Your task to perform on an android device: uninstall "Adobe Acrobat Reader: Edit PDF" Image 0: 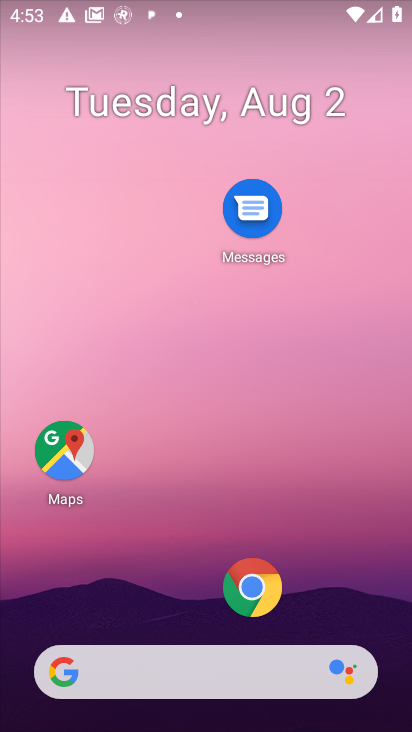
Step 0: drag from (218, 620) to (217, 191)
Your task to perform on an android device: uninstall "Adobe Acrobat Reader: Edit PDF" Image 1: 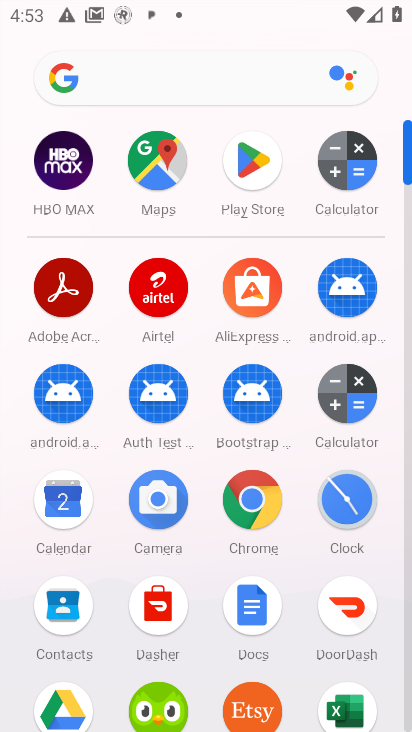
Step 1: click (254, 149)
Your task to perform on an android device: uninstall "Adobe Acrobat Reader: Edit PDF" Image 2: 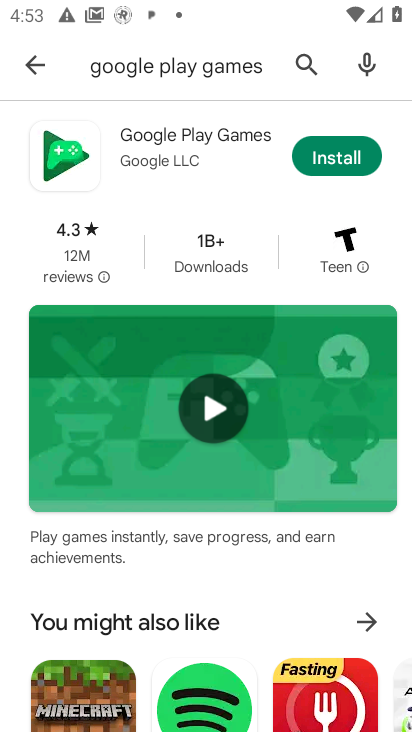
Step 2: click (310, 71)
Your task to perform on an android device: uninstall "Adobe Acrobat Reader: Edit PDF" Image 3: 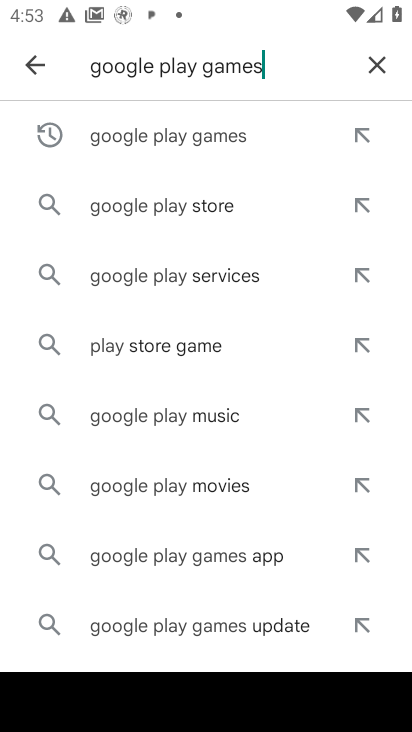
Step 3: click (383, 61)
Your task to perform on an android device: uninstall "Adobe Acrobat Reader: Edit PDF" Image 4: 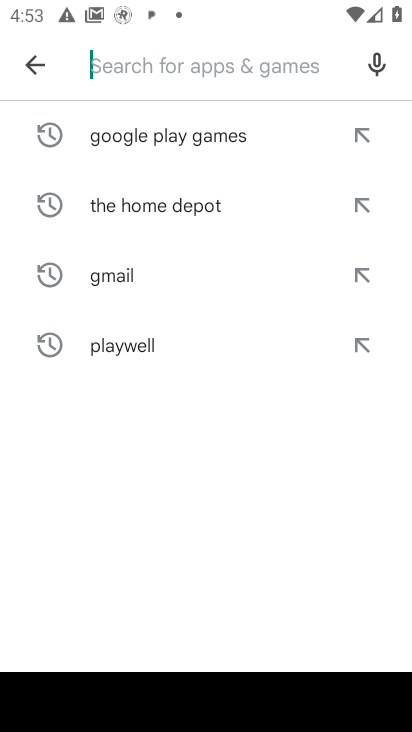
Step 4: type "Adobe Acrobat Reader: Edit PDF"
Your task to perform on an android device: uninstall "Adobe Acrobat Reader: Edit PDF" Image 5: 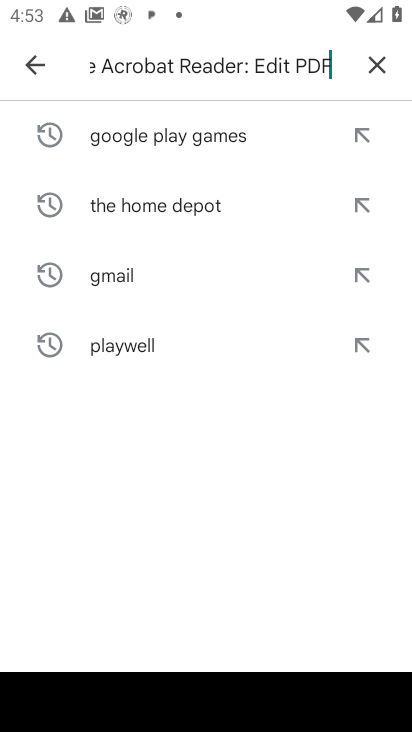
Step 5: type ""
Your task to perform on an android device: uninstall "Adobe Acrobat Reader: Edit PDF" Image 6: 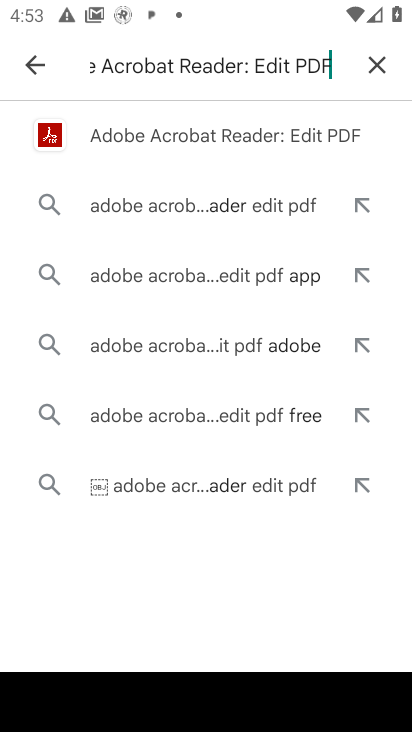
Step 6: click (185, 135)
Your task to perform on an android device: uninstall "Adobe Acrobat Reader: Edit PDF" Image 7: 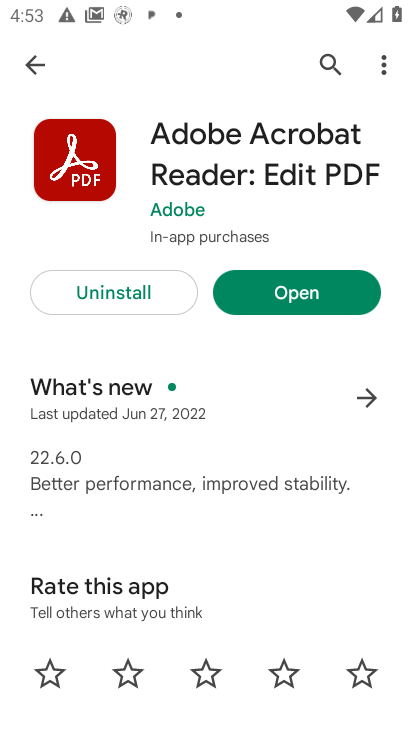
Step 7: click (144, 291)
Your task to perform on an android device: uninstall "Adobe Acrobat Reader: Edit PDF" Image 8: 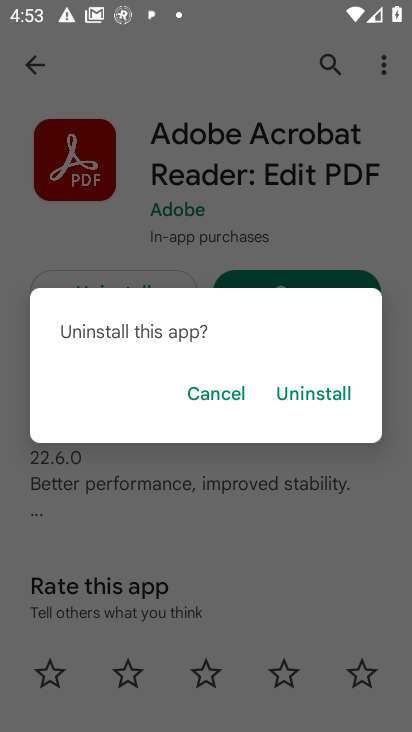
Step 8: click (330, 397)
Your task to perform on an android device: uninstall "Adobe Acrobat Reader: Edit PDF" Image 9: 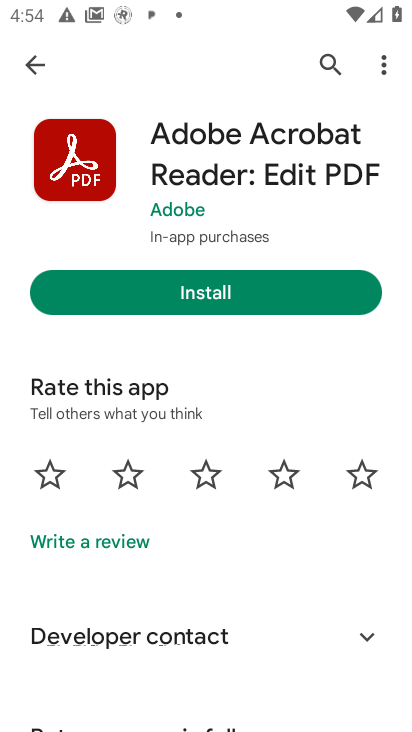
Step 9: task complete